Your task to perform on an android device: refresh tabs in the chrome app Image 0: 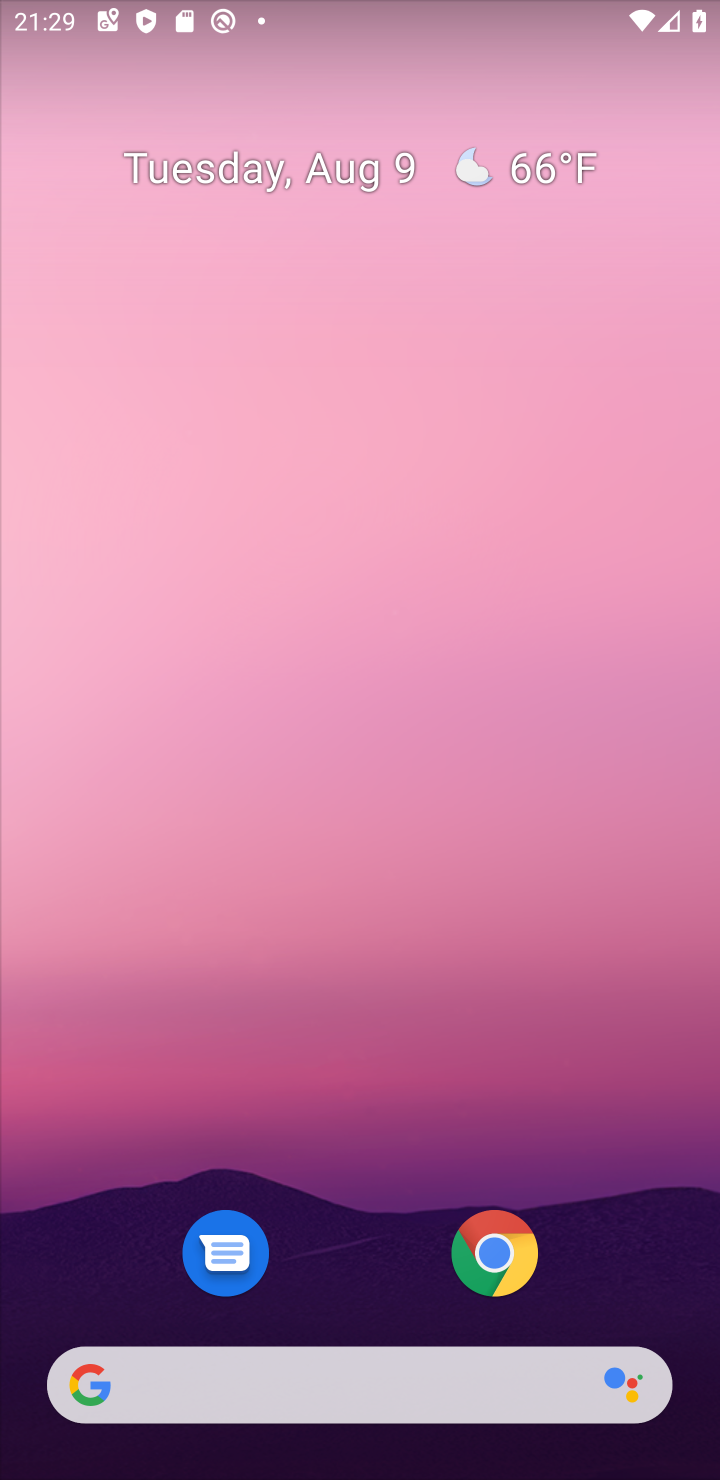
Step 0: drag from (343, 1185) to (400, 0)
Your task to perform on an android device: refresh tabs in the chrome app Image 1: 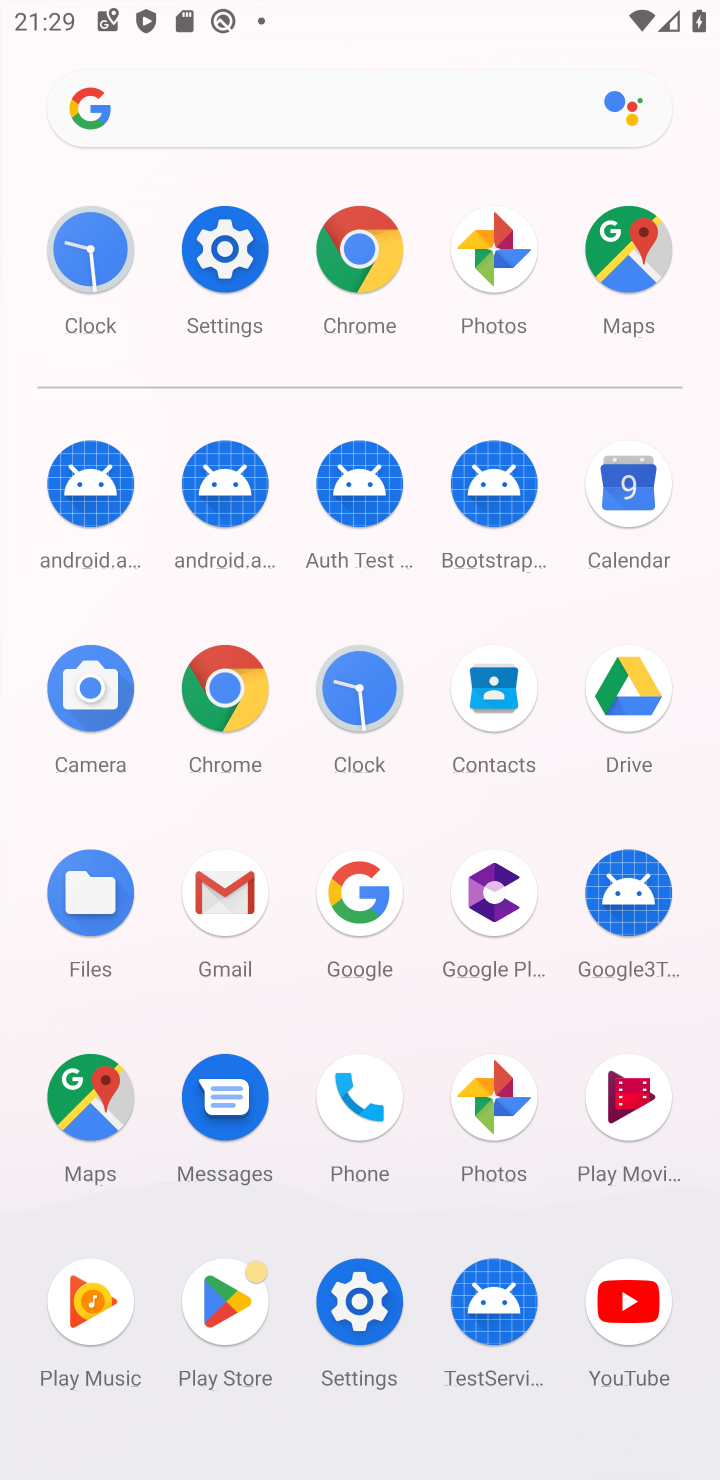
Step 1: click (234, 691)
Your task to perform on an android device: refresh tabs in the chrome app Image 2: 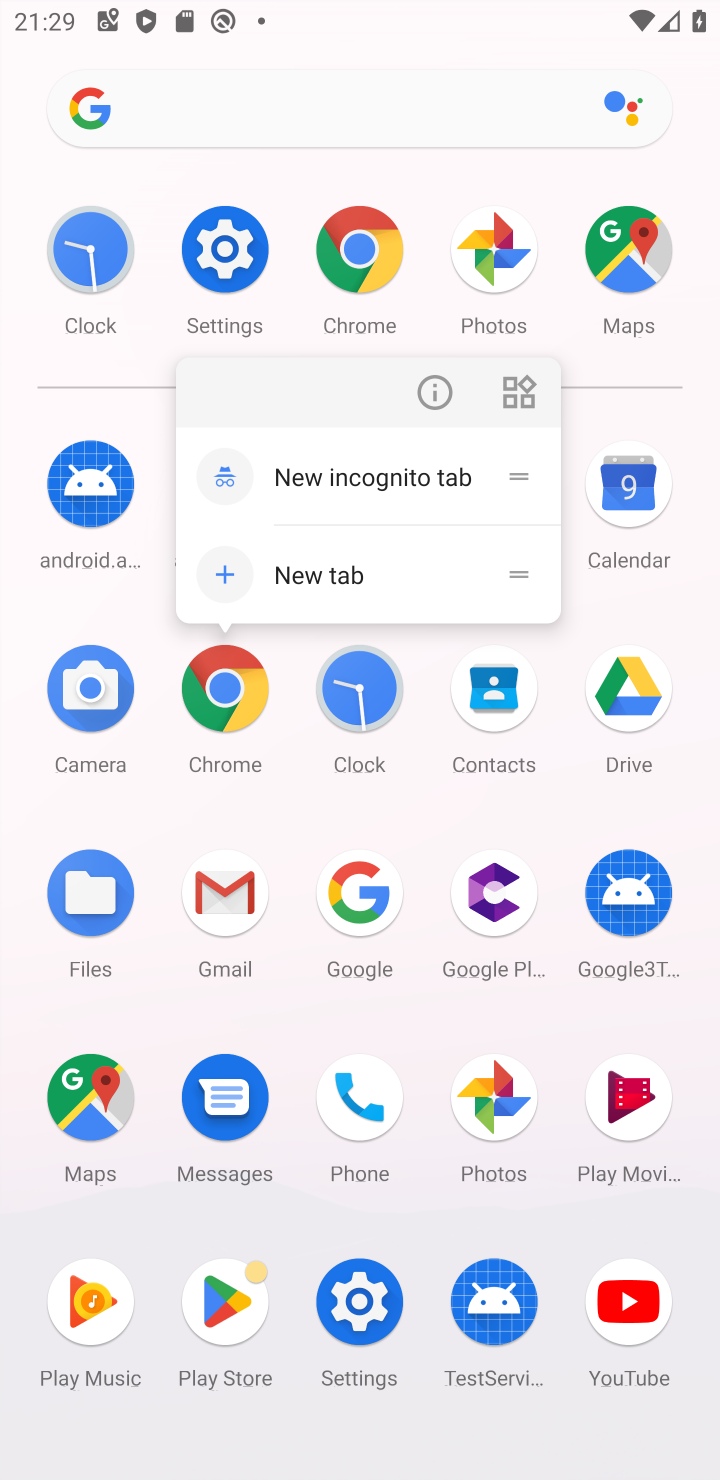
Step 2: click (210, 686)
Your task to perform on an android device: refresh tabs in the chrome app Image 3: 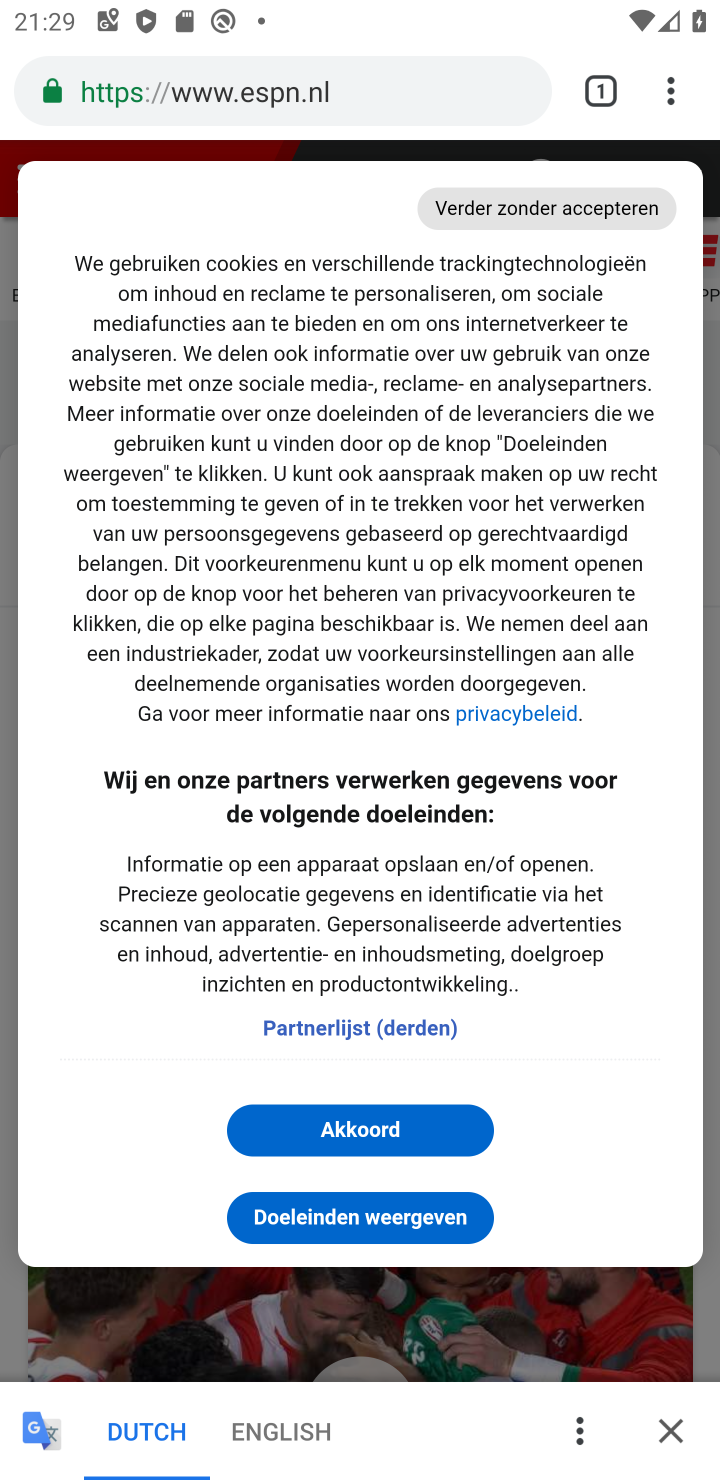
Step 3: click (675, 86)
Your task to perform on an android device: refresh tabs in the chrome app Image 4: 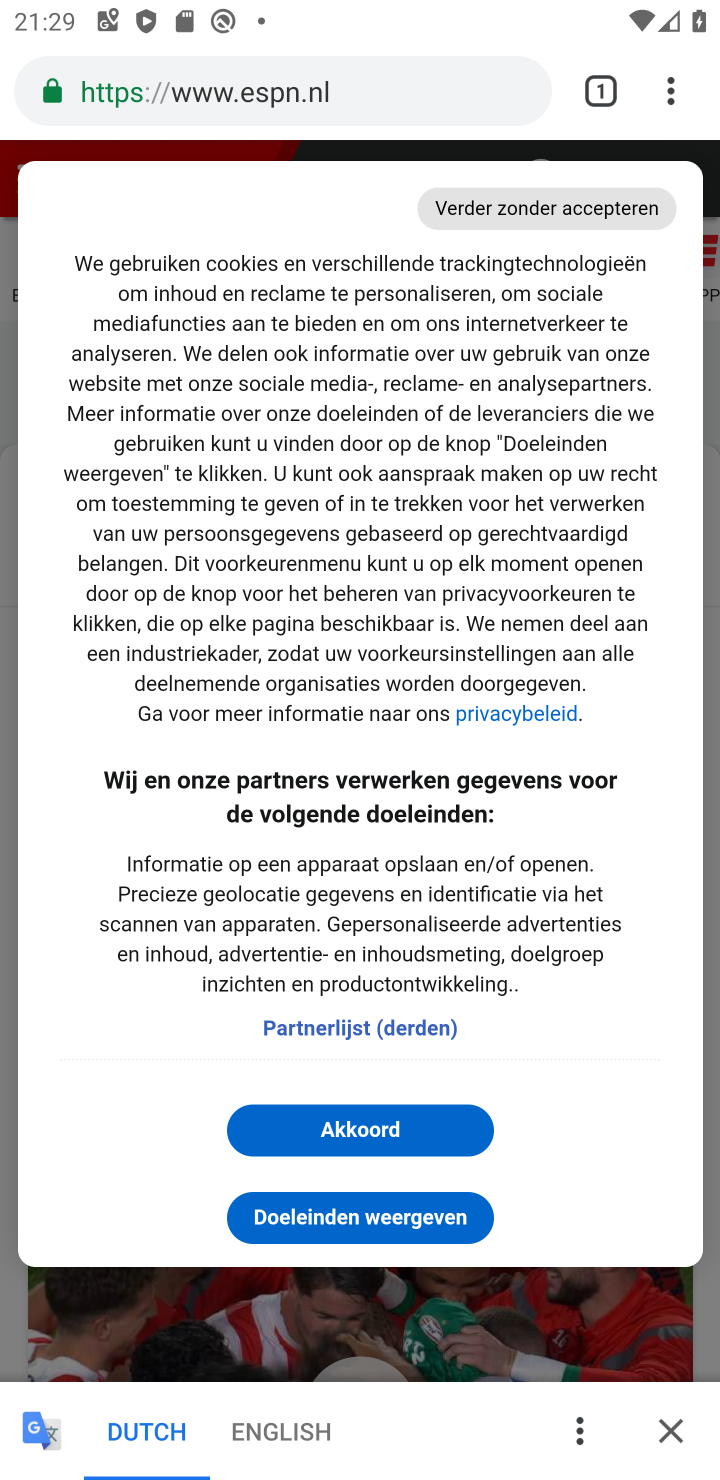
Step 4: task complete